Your task to perform on an android device: visit the assistant section in the google photos Image 0: 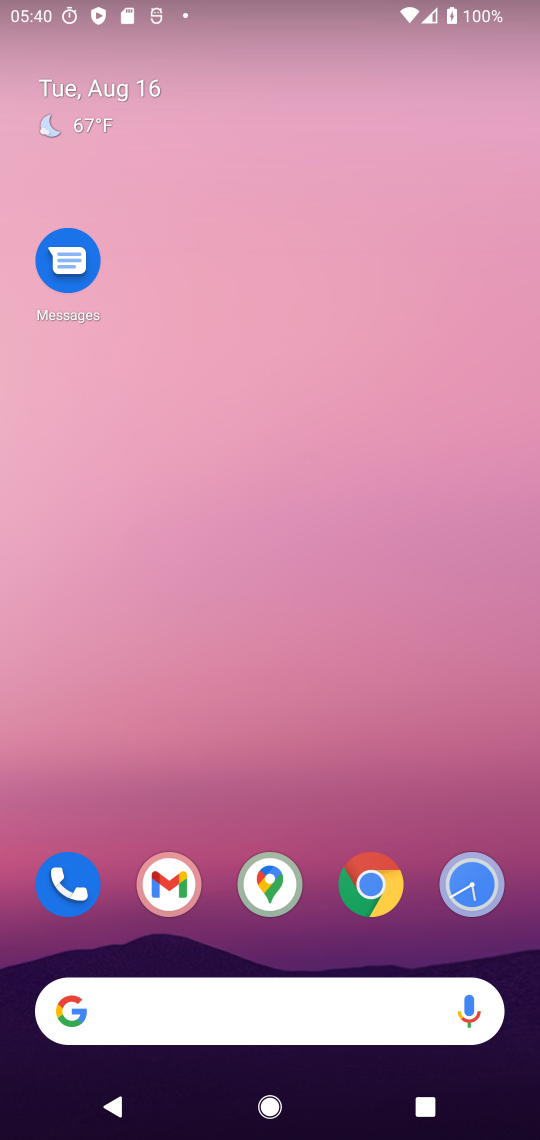
Step 0: drag from (386, 467) to (417, 398)
Your task to perform on an android device: visit the assistant section in the google photos Image 1: 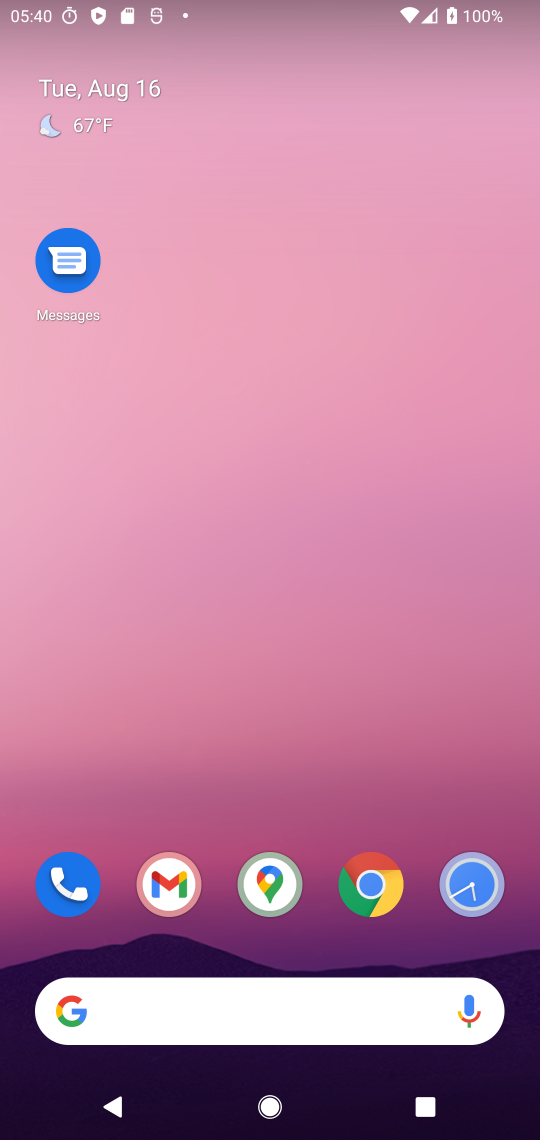
Step 1: drag from (52, 1072) to (389, 355)
Your task to perform on an android device: visit the assistant section in the google photos Image 2: 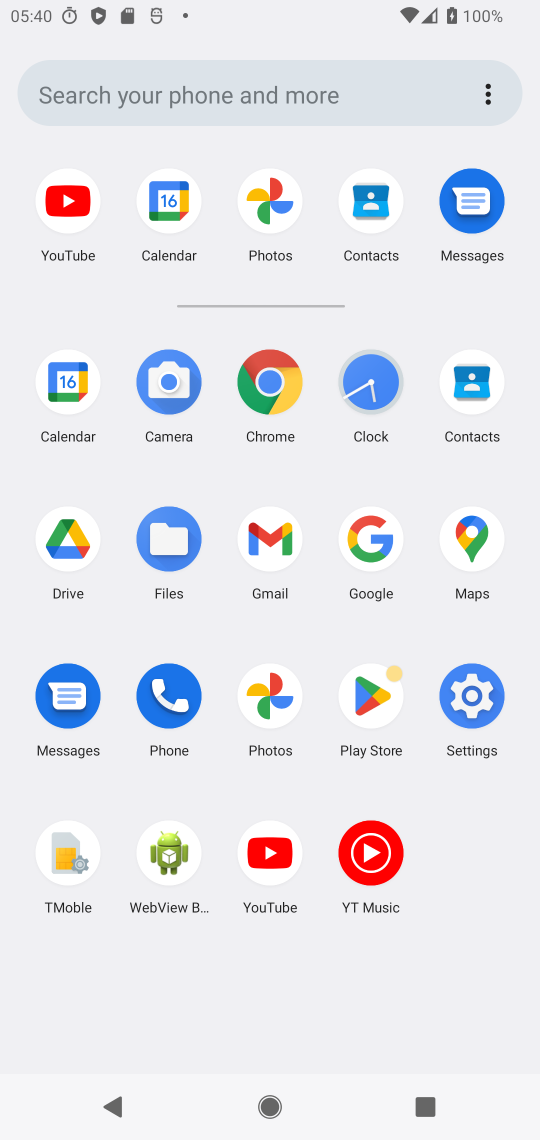
Step 2: click (265, 688)
Your task to perform on an android device: visit the assistant section in the google photos Image 3: 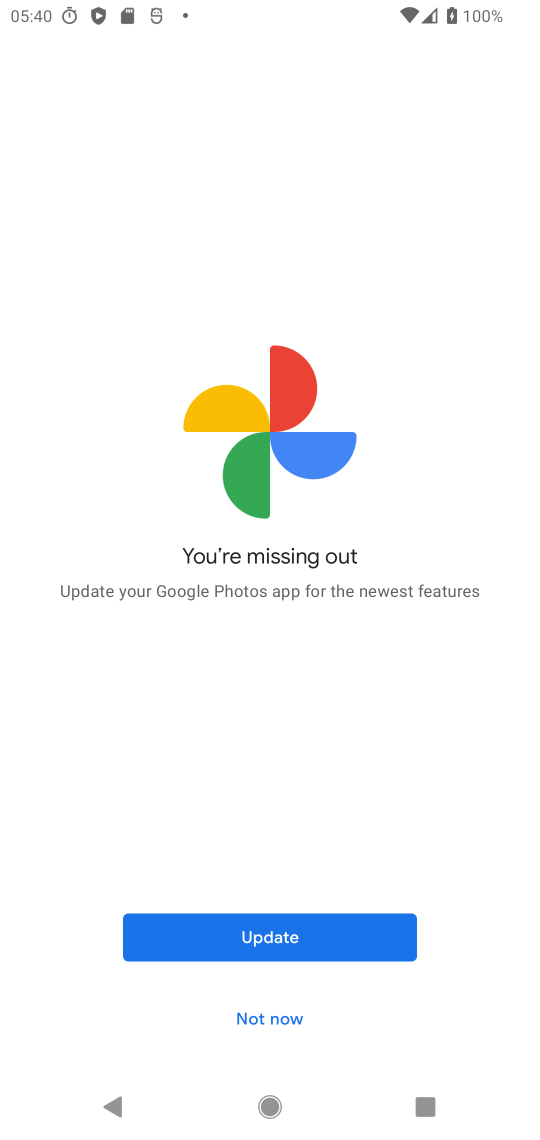
Step 3: click (280, 1025)
Your task to perform on an android device: visit the assistant section in the google photos Image 4: 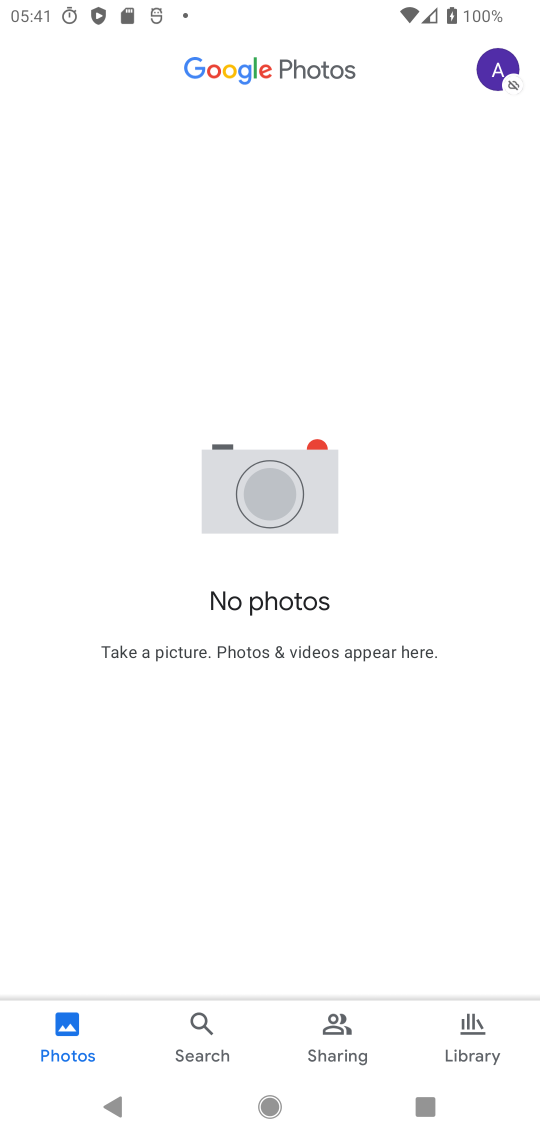
Step 4: click (490, 63)
Your task to perform on an android device: visit the assistant section in the google photos Image 5: 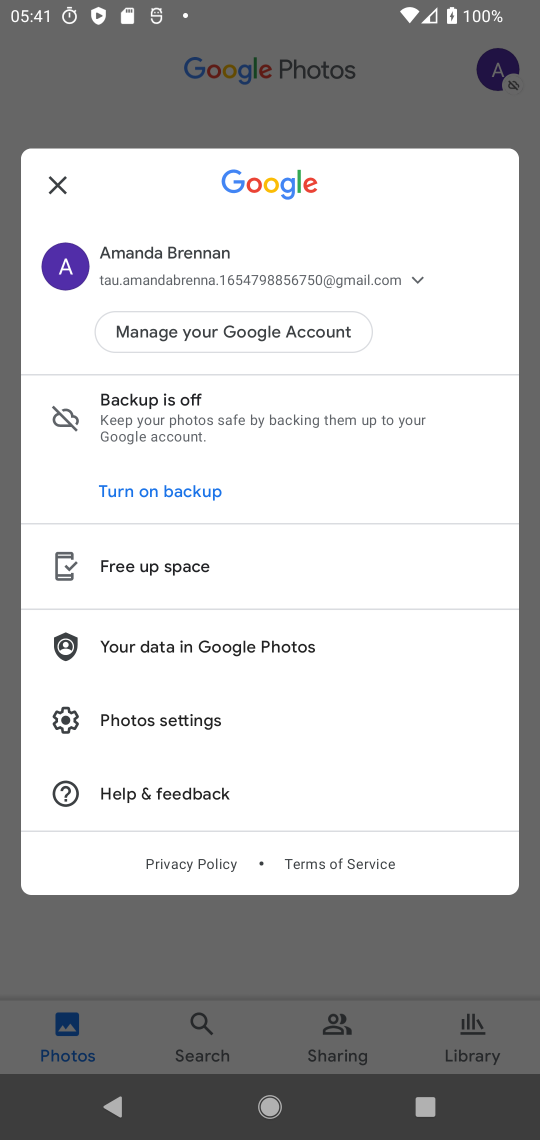
Step 5: click (372, 914)
Your task to perform on an android device: visit the assistant section in the google photos Image 6: 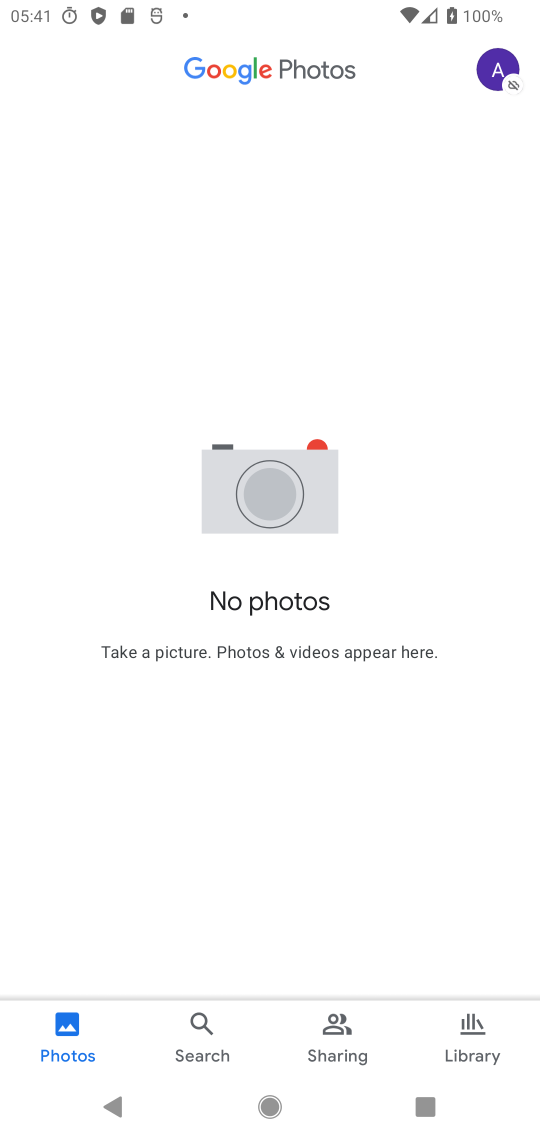
Step 6: task complete